Your task to perform on an android device: Toggle the flashlight Image 0: 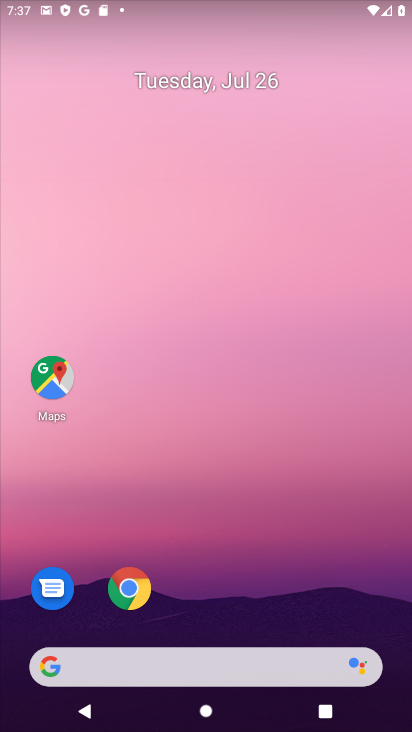
Step 0: drag from (138, 635) to (275, 67)
Your task to perform on an android device: Toggle the flashlight Image 1: 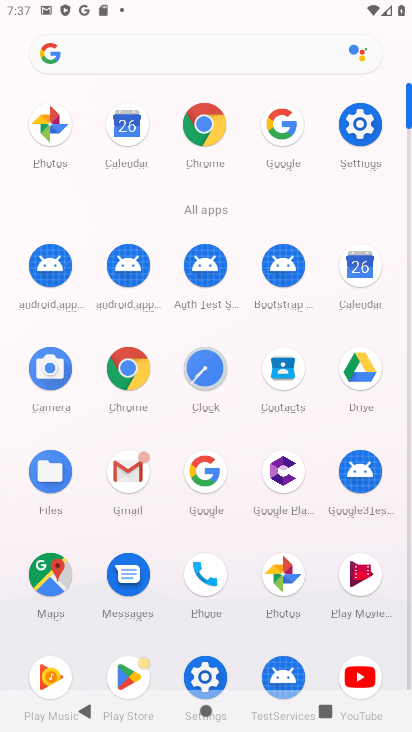
Step 1: task complete